Your task to perform on an android device: What's on my calendar today? Image 0: 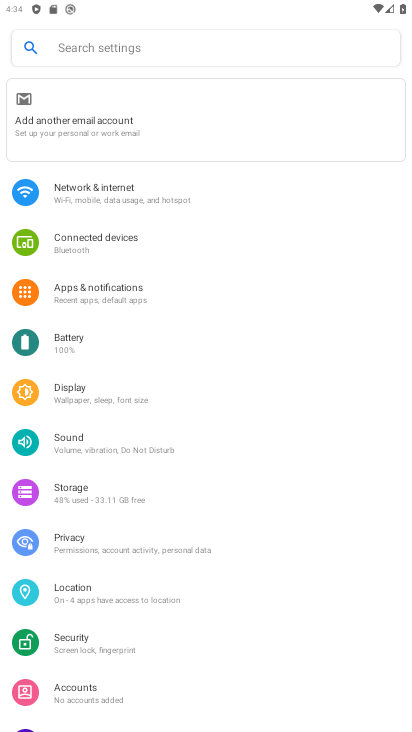
Step 0: press home button
Your task to perform on an android device: What's on my calendar today? Image 1: 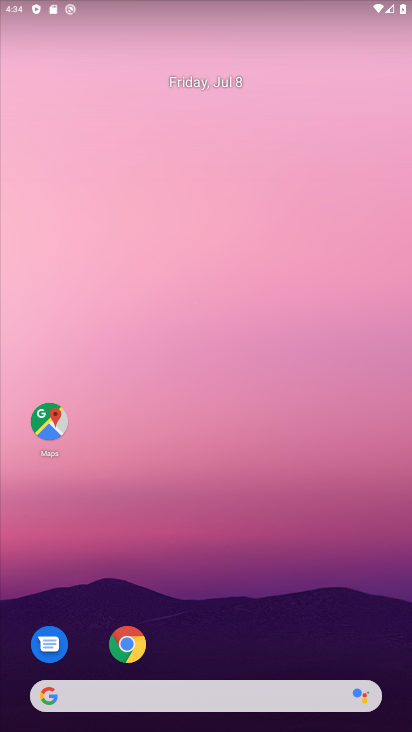
Step 1: drag from (321, 529) to (347, 129)
Your task to perform on an android device: What's on my calendar today? Image 2: 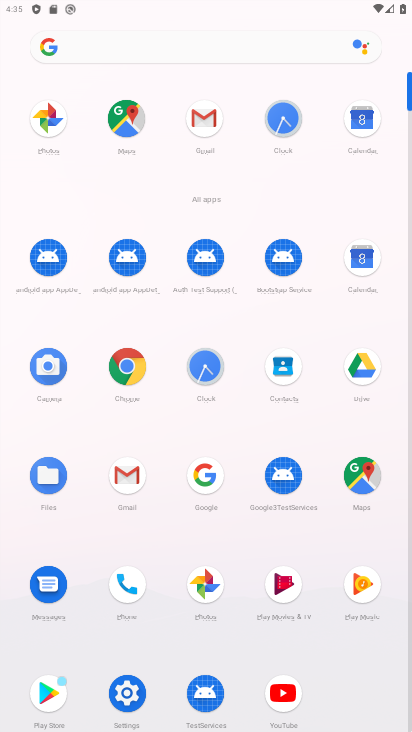
Step 2: click (361, 263)
Your task to perform on an android device: What's on my calendar today? Image 3: 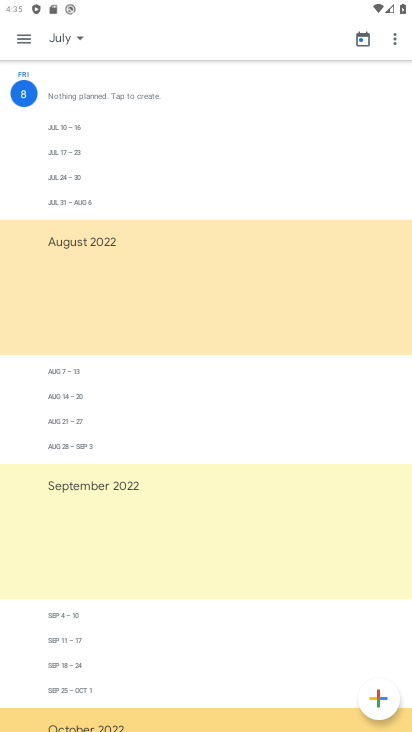
Step 3: task complete